Your task to perform on an android device: Play the last video I watched on Youtube Image 0: 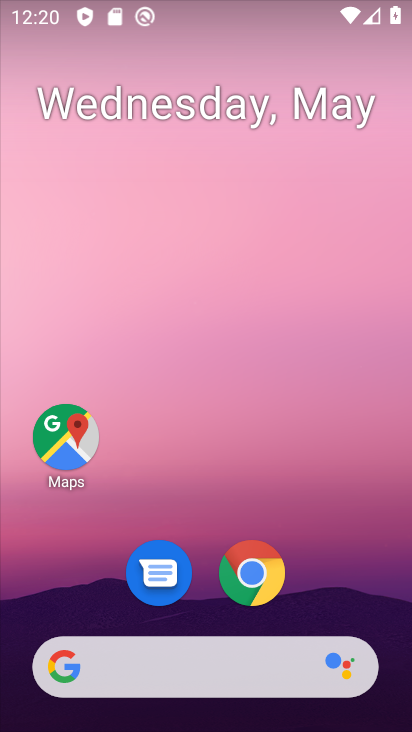
Step 0: press home button
Your task to perform on an android device: Play the last video I watched on Youtube Image 1: 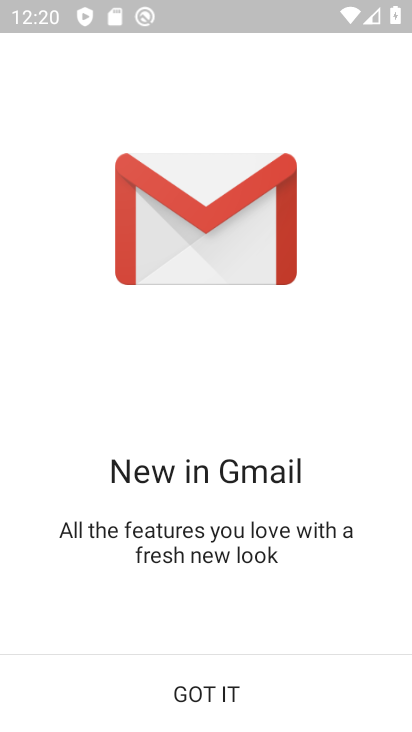
Step 1: press home button
Your task to perform on an android device: Play the last video I watched on Youtube Image 2: 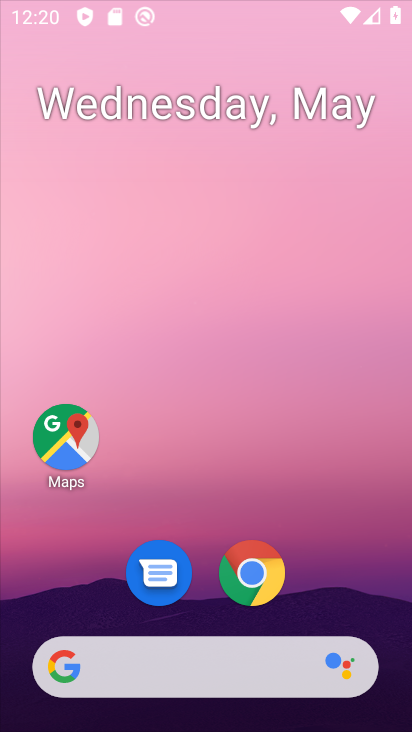
Step 2: press home button
Your task to perform on an android device: Play the last video I watched on Youtube Image 3: 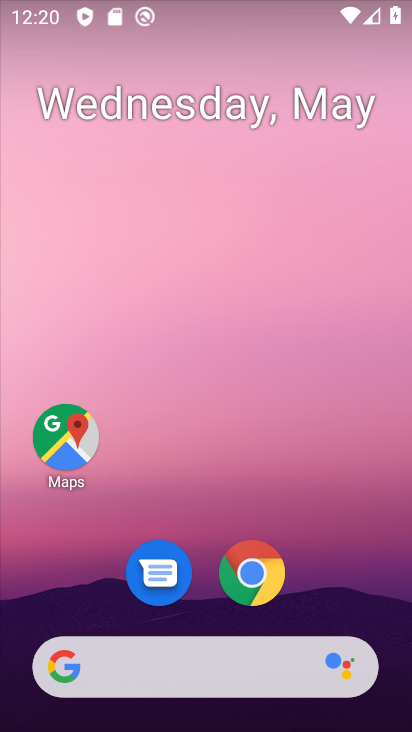
Step 3: drag from (358, 591) to (365, 120)
Your task to perform on an android device: Play the last video I watched on Youtube Image 4: 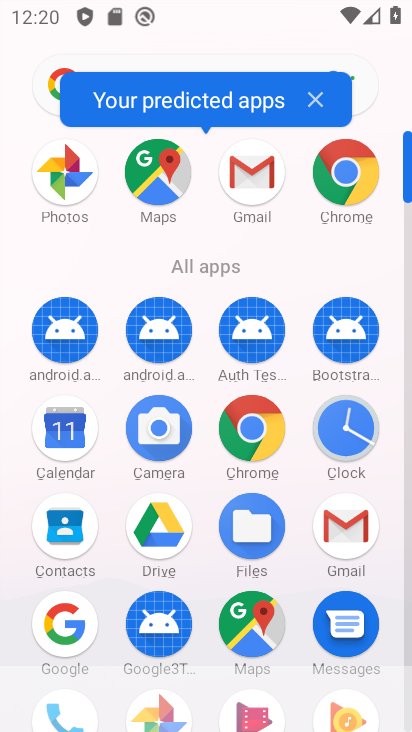
Step 4: click (406, 727)
Your task to perform on an android device: Play the last video I watched on Youtube Image 5: 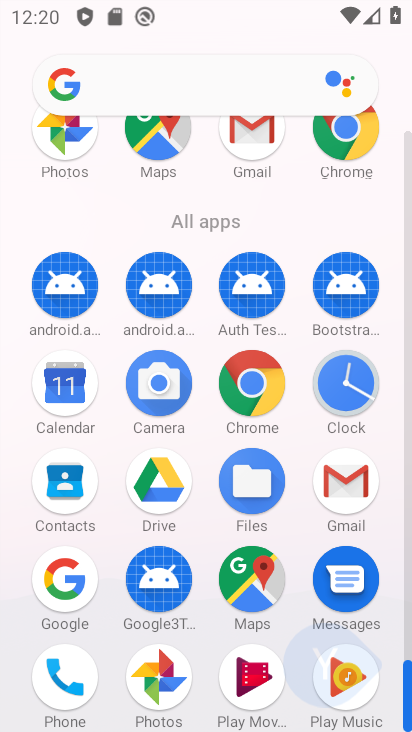
Step 5: click (406, 727)
Your task to perform on an android device: Play the last video I watched on Youtube Image 6: 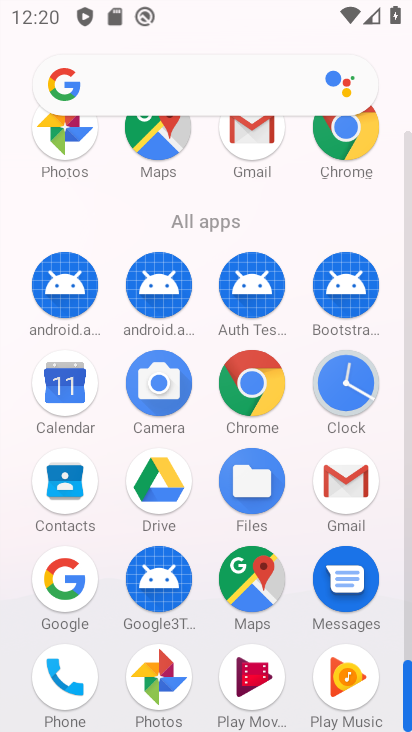
Step 6: click (406, 727)
Your task to perform on an android device: Play the last video I watched on Youtube Image 7: 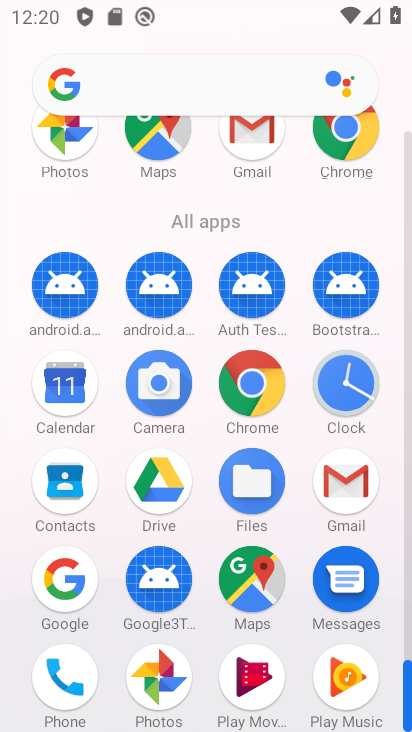
Step 7: click (406, 727)
Your task to perform on an android device: Play the last video I watched on Youtube Image 8: 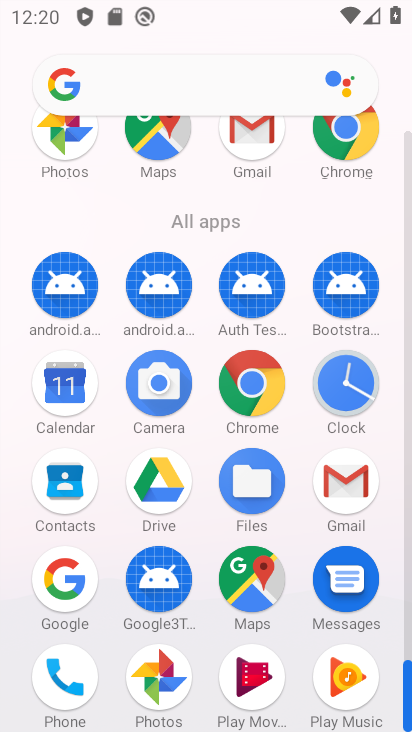
Step 8: click (403, 688)
Your task to perform on an android device: Play the last video I watched on Youtube Image 9: 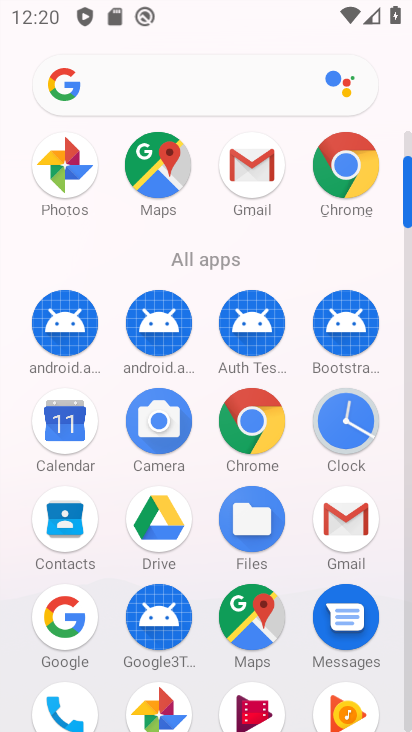
Step 9: click (409, 729)
Your task to perform on an android device: Play the last video I watched on Youtube Image 10: 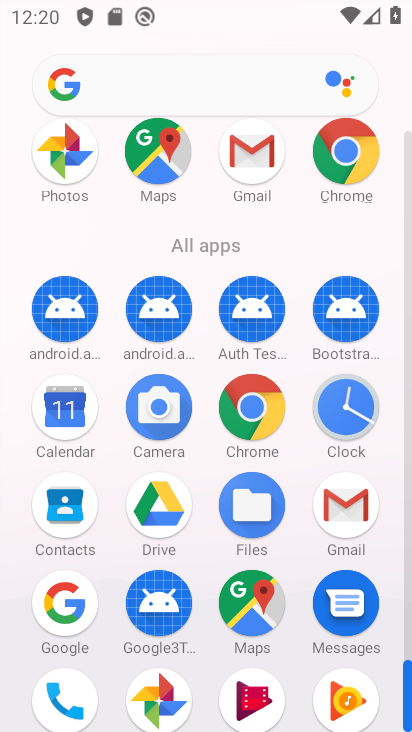
Step 10: click (409, 729)
Your task to perform on an android device: Play the last video I watched on Youtube Image 11: 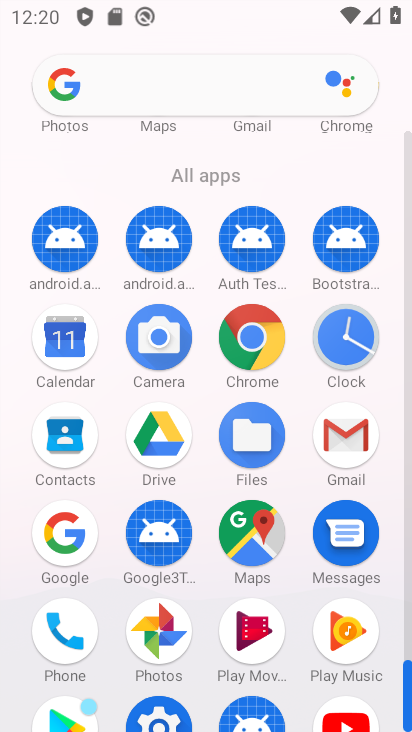
Step 11: click (409, 729)
Your task to perform on an android device: Play the last video I watched on Youtube Image 12: 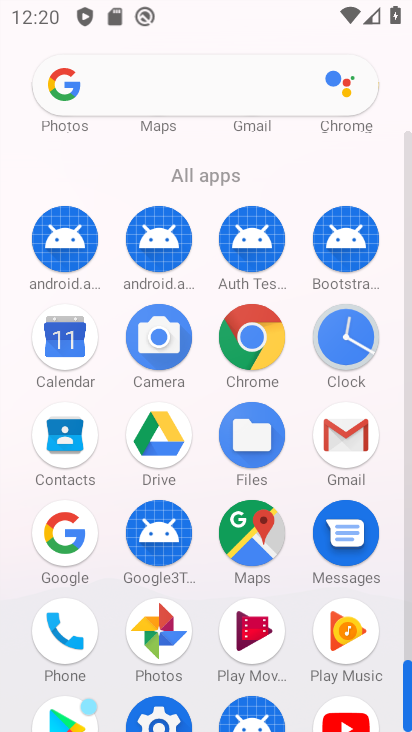
Step 12: click (409, 729)
Your task to perform on an android device: Play the last video I watched on Youtube Image 13: 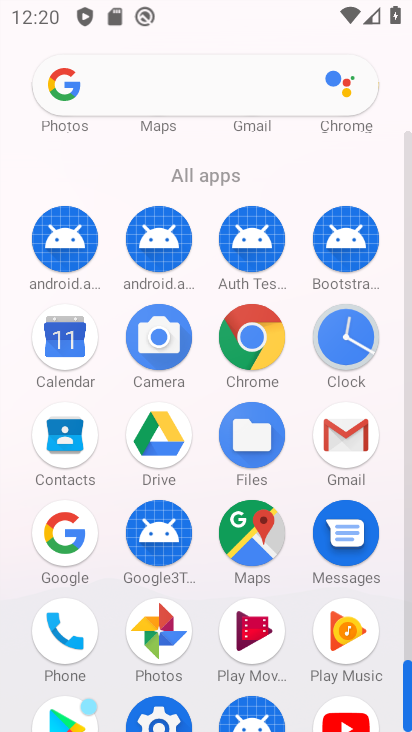
Step 13: click (409, 729)
Your task to perform on an android device: Play the last video I watched on Youtube Image 14: 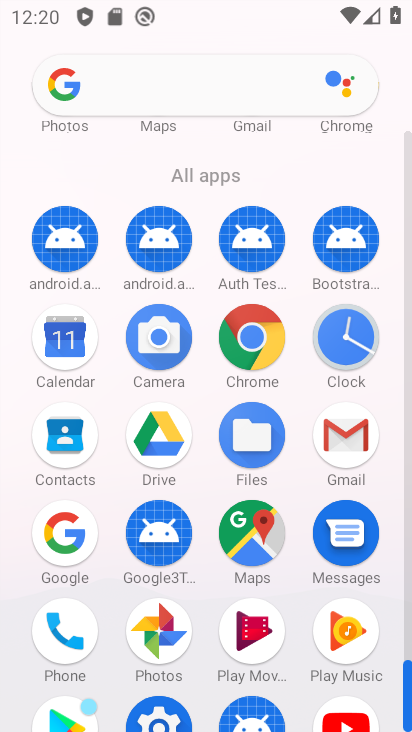
Step 14: click (409, 729)
Your task to perform on an android device: Play the last video I watched on Youtube Image 15: 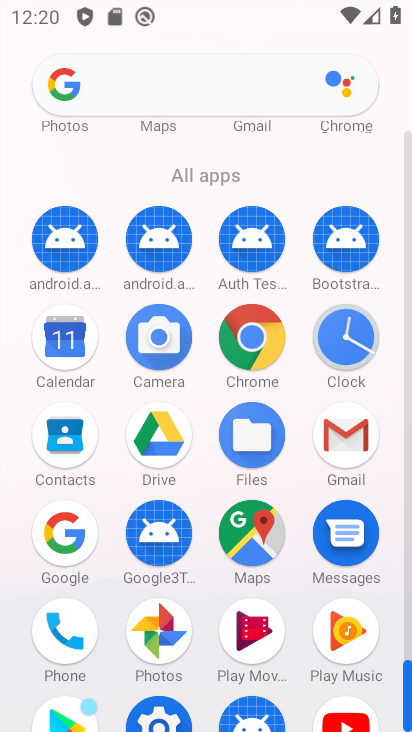
Step 15: click (355, 716)
Your task to perform on an android device: Play the last video I watched on Youtube Image 16: 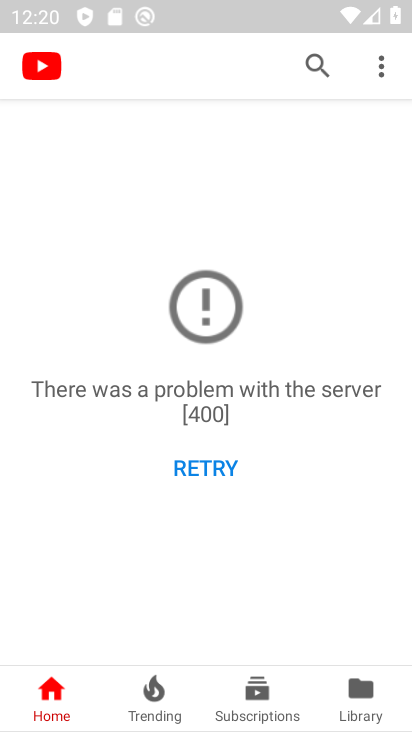
Step 16: task complete